Your task to perform on an android device: turn off picture-in-picture Image 0: 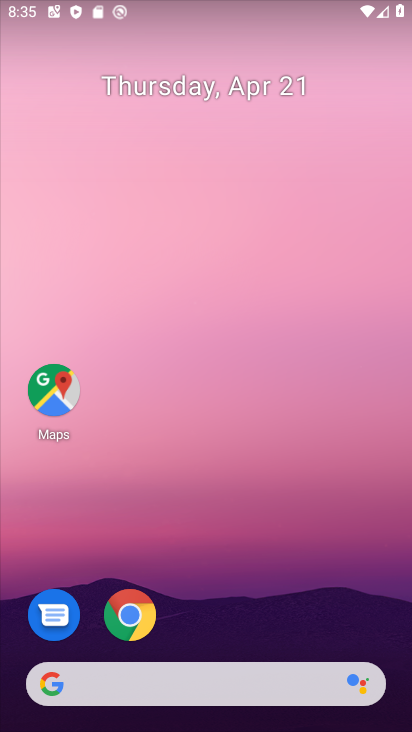
Step 0: click (129, 609)
Your task to perform on an android device: turn off picture-in-picture Image 1: 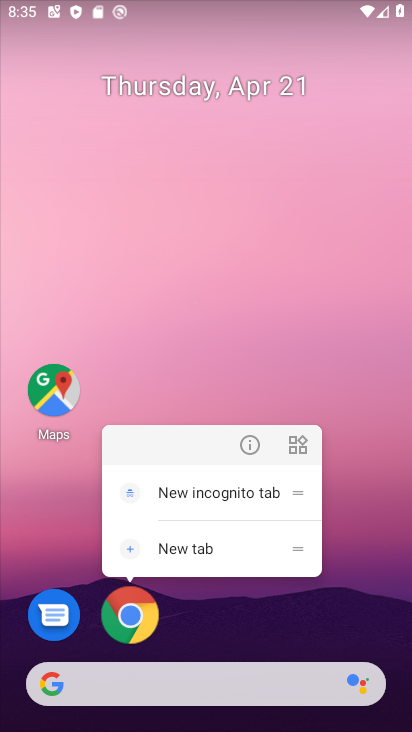
Step 1: click (250, 447)
Your task to perform on an android device: turn off picture-in-picture Image 2: 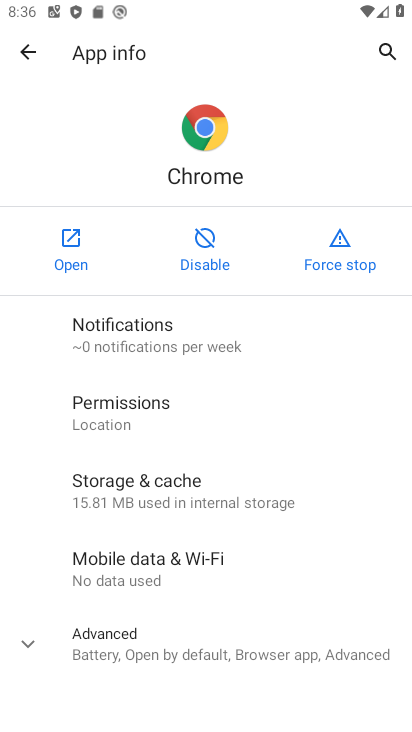
Step 2: task complete